Your task to perform on an android device: open app "Messenger Lite" (install if not already installed), go to login, and select forgot password Image 0: 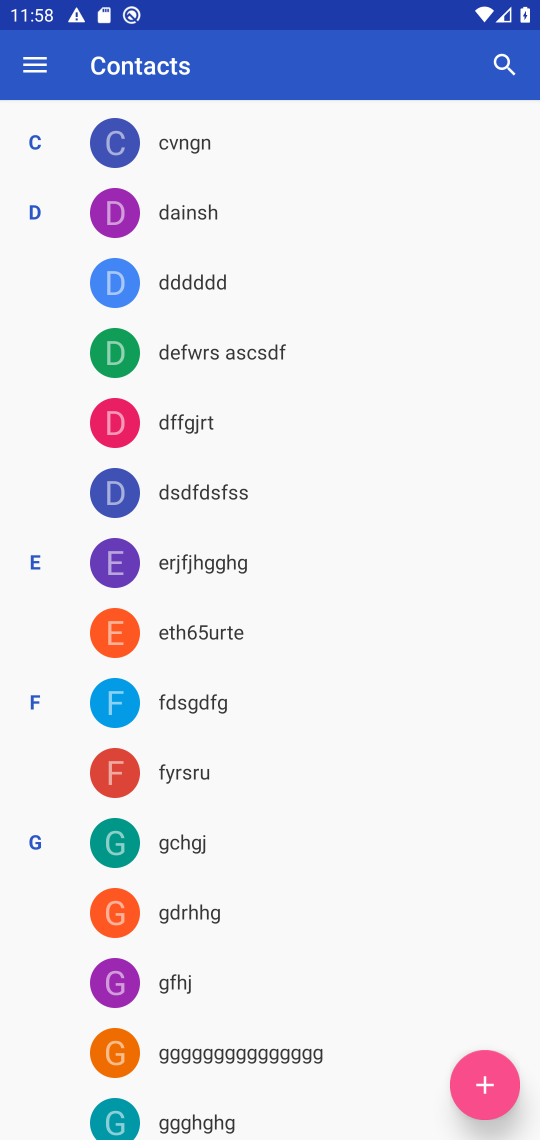
Step 0: task complete